Your task to perform on an android device: Search for seafood restaurants on Google Maps Image 0: 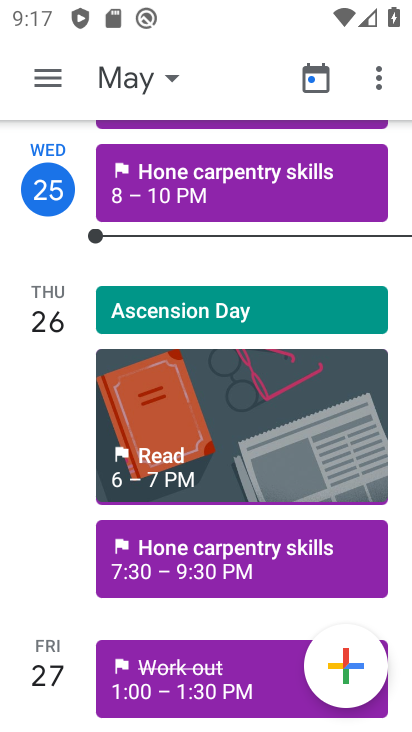
Step 0: press home button
Your task to perform on an android device: Search for seafood restaurants on Google Maps Image 1: 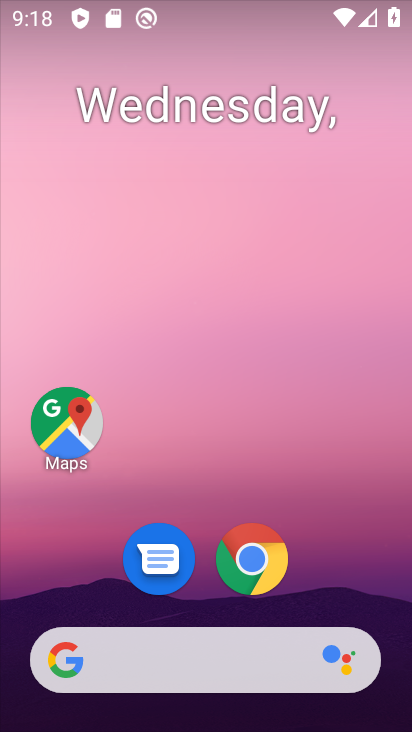
Step 1: click (57, 428)
Your task to perform on an android device: Search for seafood restaurants on Google Maps Image 2: 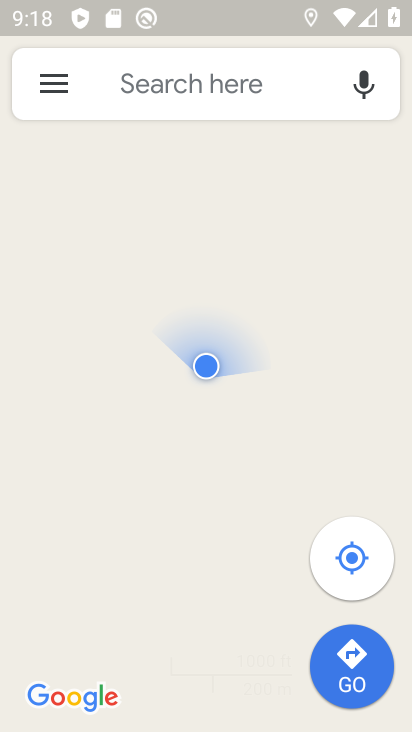
Step 2: click (134, 80)
Your task to perform on an android device: Search for seafood restaurants on Google Maps Image 3: 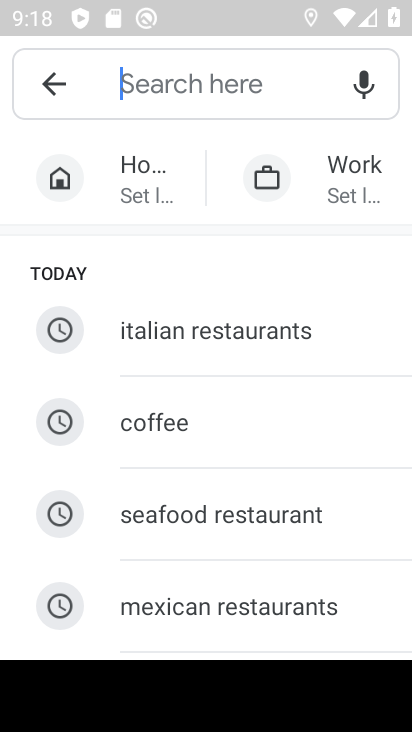
Step 3: type "seafood restaurants"
Your task to perform on an android device: Search for seafood restaurants on Google Maps Image 4: 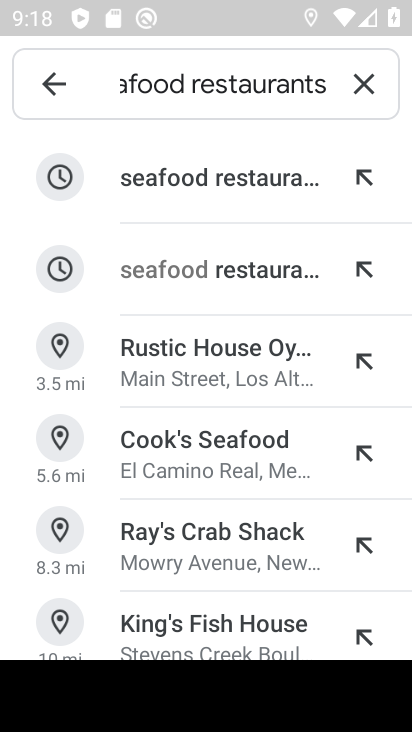
Step 4: click (232, 190)
Your task to perform on an android device: Search for seafood restaurants on Google Maps Image 5: 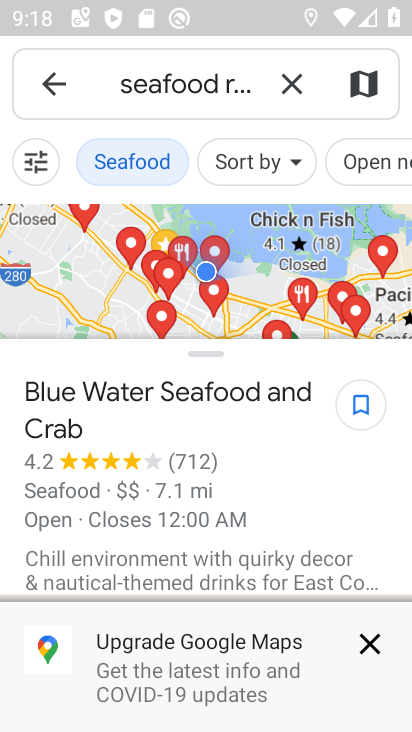
Step 5: task complete